Your task to perform on an android device: Clear the shopping cart on amazon.com. Search for "razer naga" on amazon.com, select the first entry, and add it to the cart. Image 0: 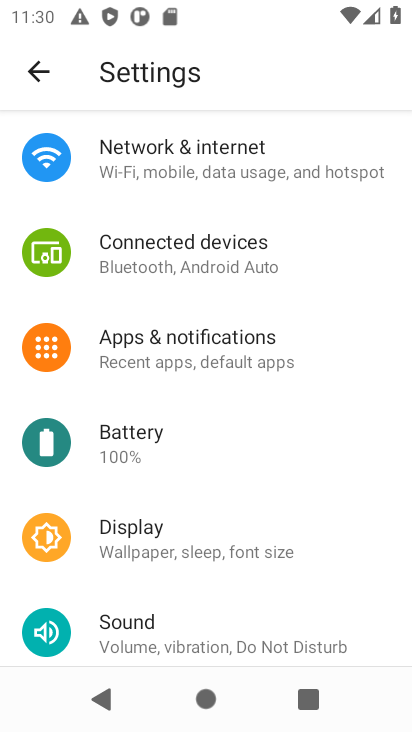
Step 0: press home button
Your task to perform on an android device: Clear the shopping cart on amazon.com. Search for "razer naga" on amazon.com, select the first entry, and add it to the cart. Image 1: 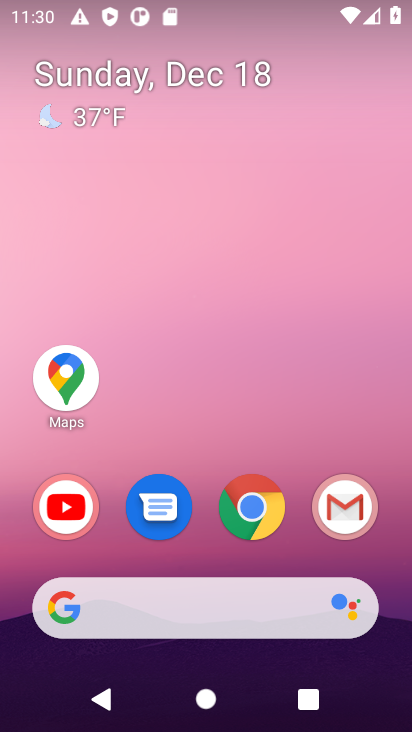
Step 1: click (253, 511)
Your task to perform on an android device: Clear the shopping cart on amazon.com. Search for "razer naga" on amazon.com, select the first entry, and add it to the cart. Image 2: 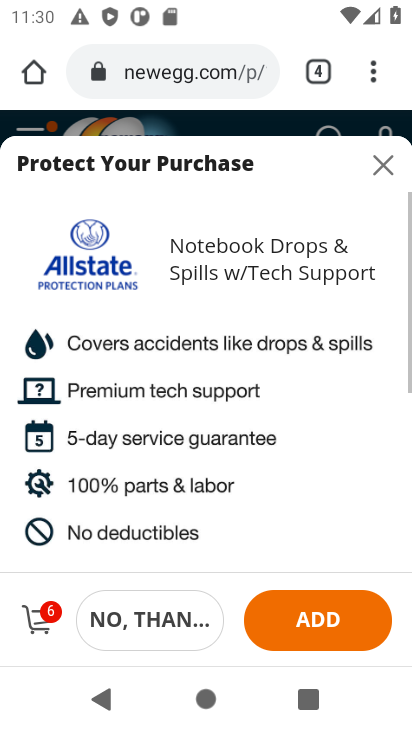
Step 2: click (143, 68)
Your task to perform on an android device: Clear the shopping cart on amazon.com. Search for "razer naga" on amazon.com, select the first entry, and add it to the cart. Image 3: 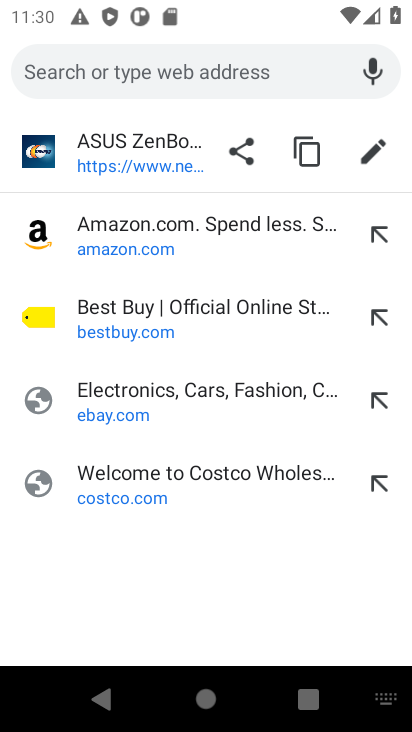
Step 3: click (97, 253)
Your task to perform on an android device: Clear the shopping cart on amazon.com. Search for "razer naga" on amazon.com, select the first entry, and add it to the cart. Image 4: 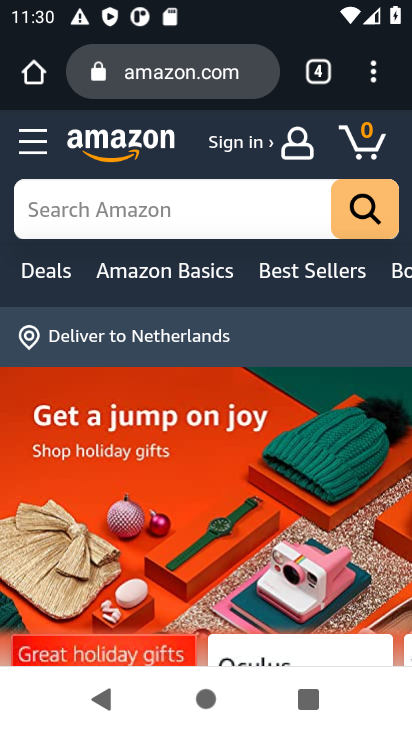
Step 4: click (353, 139)
Your task to perform on an android device: Clear the shopping cart on amazon.com. Search for "razer naga" on amazon.com, select the first entry, and add it to the cart. Image 5: 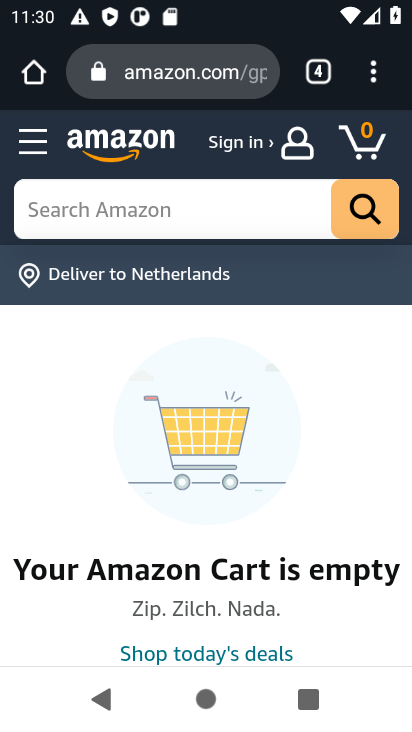
Step 5: click (39, 201)
Your task to perform on an android device: Clear the shopping cart on amazon.com. Search for "razer naga" on amazon.com, select the first entry, and add it to the cart. Image 6: 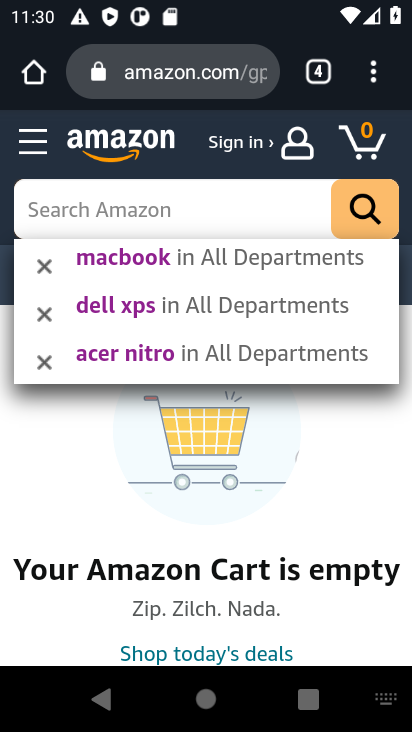
Step 6: type "razer naga"
Your task to perform on an android device: Clear the shopping cart on amazon.com. Search for "razer naga" on amazon.com, select the first entry, and add it to the cart. Image 7: 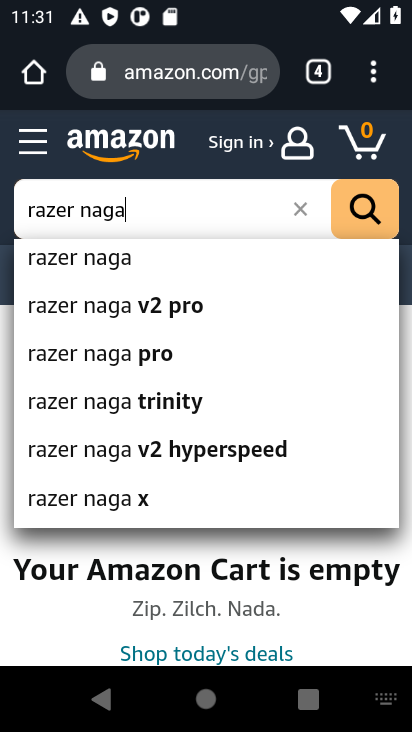
Step 7: click (99, 267)
Your task to perform on an android device: Clear the shopping cart on amazon.com. Search for "razer naga" on amazon.com, select the first entry, and add it to the cart. Image 8: 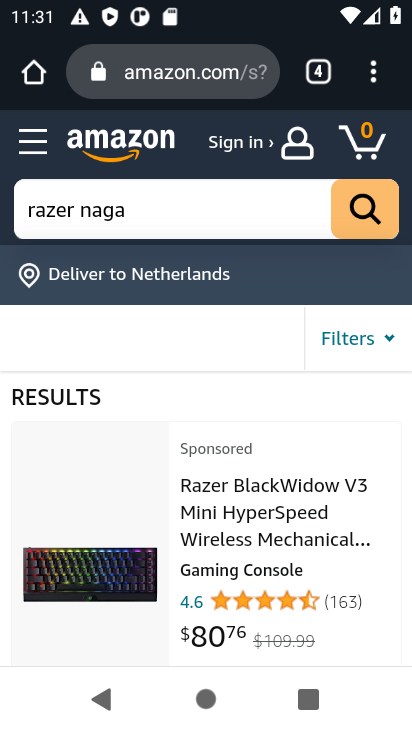
Step 8: task complete